Your task to perform on an android device: Go to privacy settings Image 0: 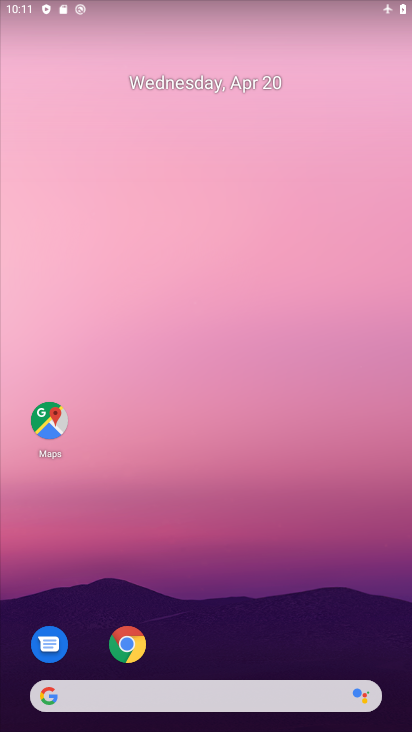
Step 0: drag from (220, 570) to (267, 69)
Your task to perform on an android device: Go to privacy settings Image 1: 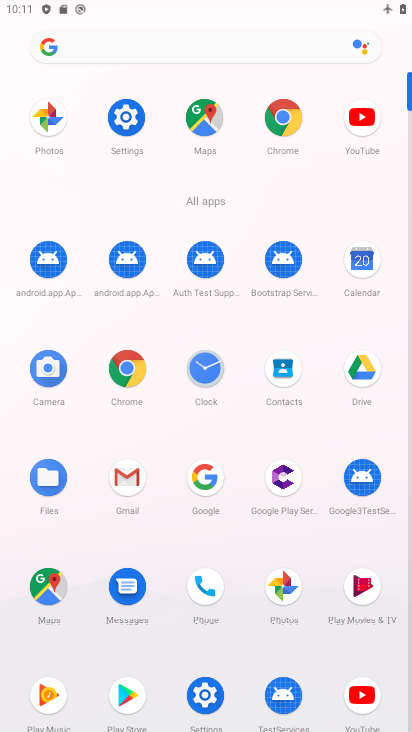
Step 1: click (125, 127)
Your task to perform on an android device: Go to privacy settings Image 2: 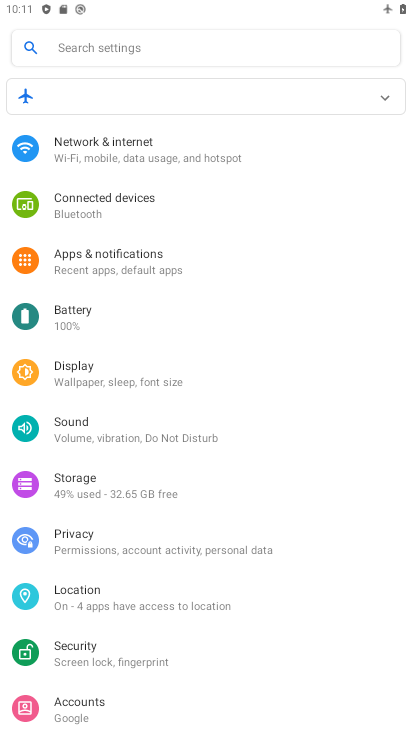
Step 2: click (110, 545)
Your task to perform on an android device: Go to privacy settings Image 3: 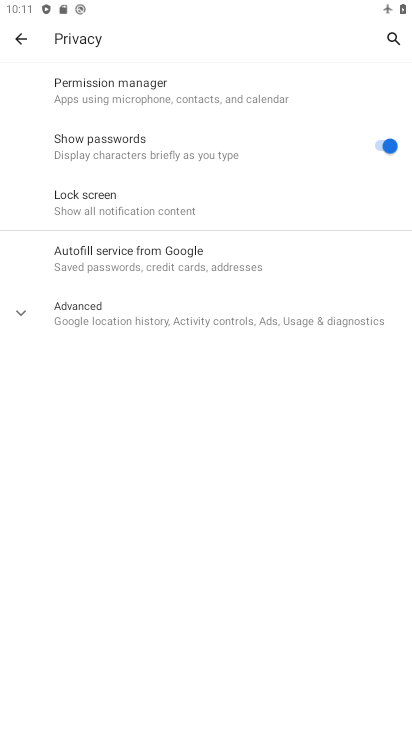
Step 3: task complete